Your task to perform on an android device: Open Amazon Image 0: 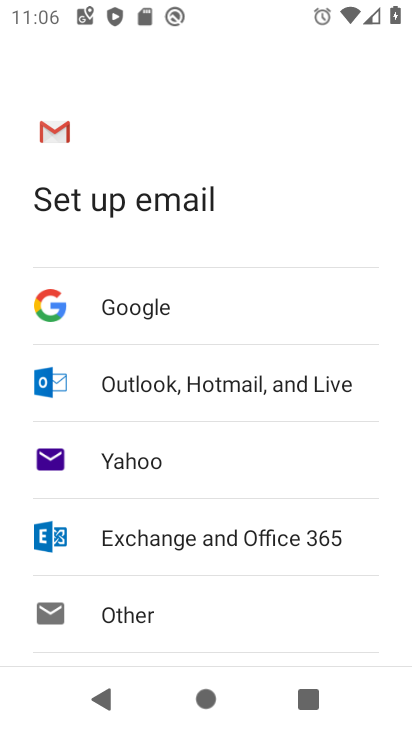
Step 0: press home button
Your task to perform on an android device: Open Amazon Image 1: 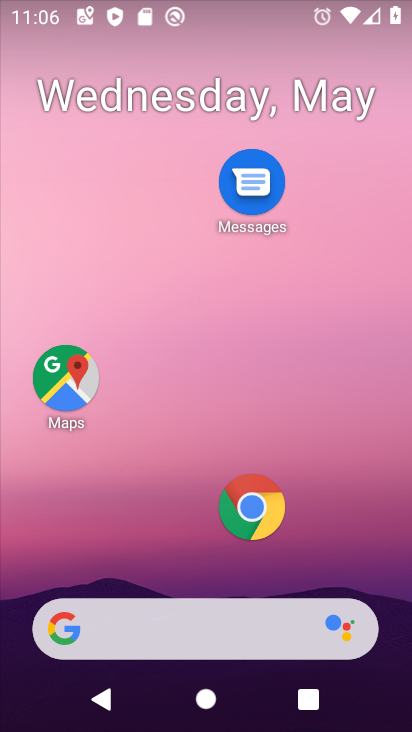
Step 1: click (250, 498)
Your task to perform on an android device: Open Amazon Image 2: 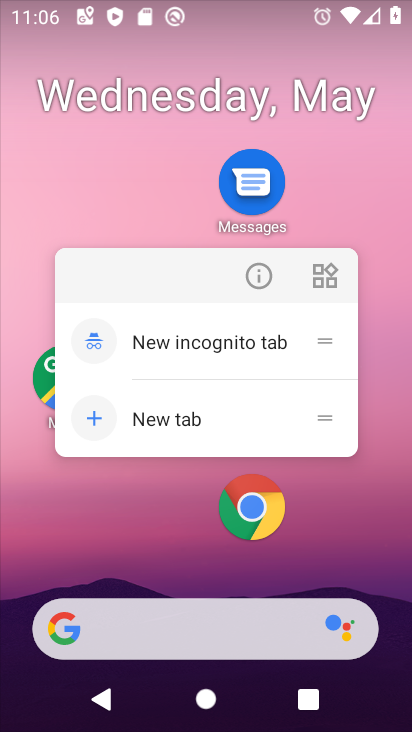
Step 2: click (250, 498)
Your task to perform on an android device: Open Amazon Image 3: 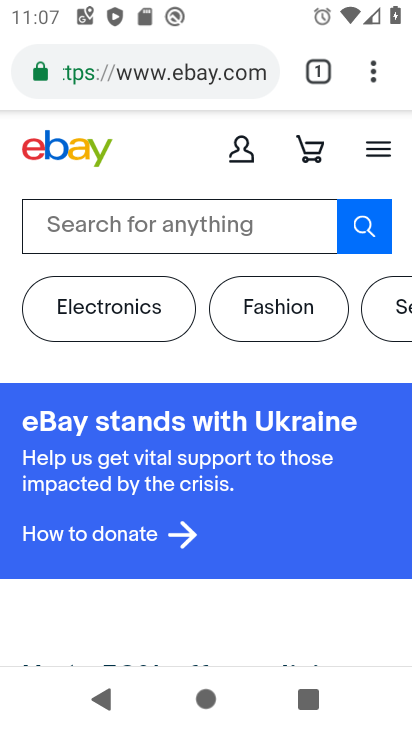
Step 3: click (372, 70)
Your task to perform on an android device: Open Amazon Image 4: 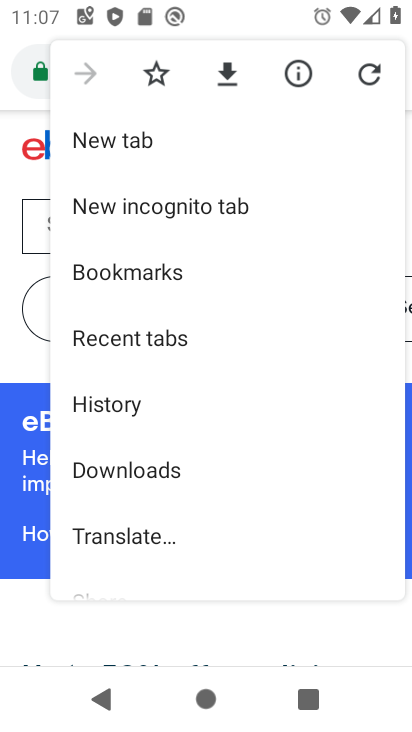
Step 4: click (16, 226)
Your task to perform on an android device: Open Amazon Image 5: 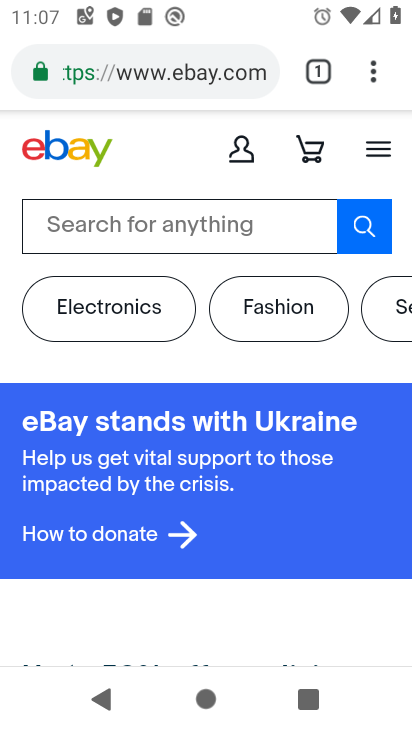
Step 5: click (317, 73)
Your task to perform on an android device: Open Amazon Image 6: 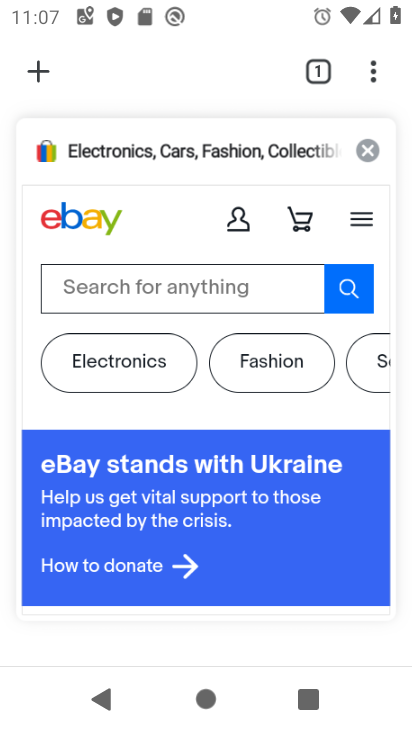
Step 6: click (43, 74)
Your task to perform on an android device: Open Amazon Image 7: 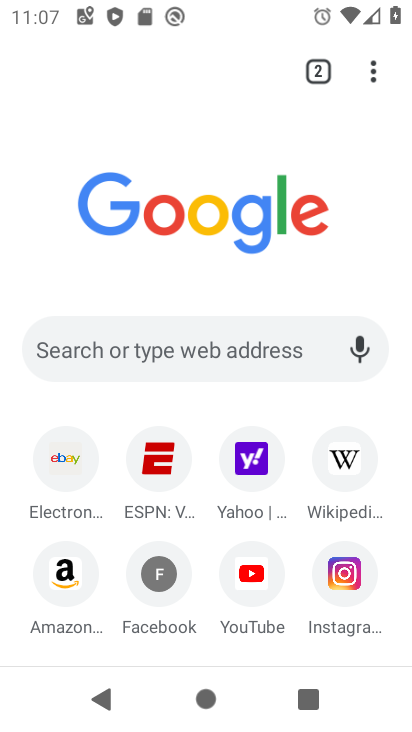
Step 7: click (62, 564)
Your task to perform on an android device: Open Amazon Image 8: 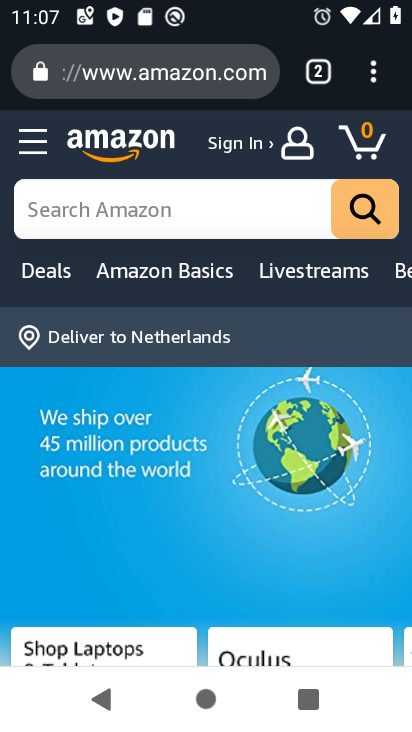
Step 8: task complete